Your task to perform on an android device: turn off priority inbox in the gmail app Image 0: 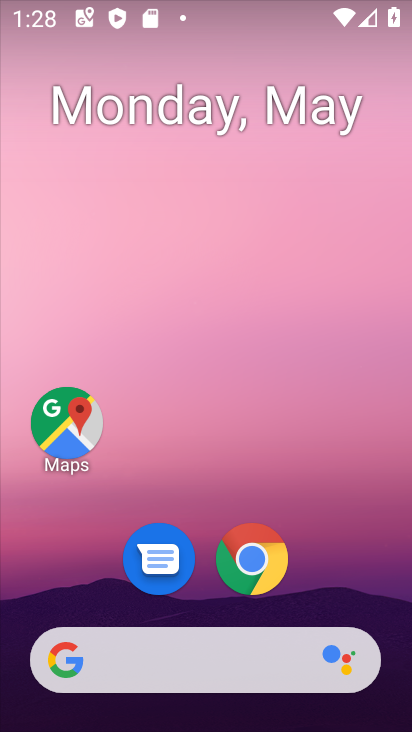
Step 0: drag from (191, 714) to (192, 285)
Your task to perform on an android device: turn off priority inbox in the gmail app Image 1: 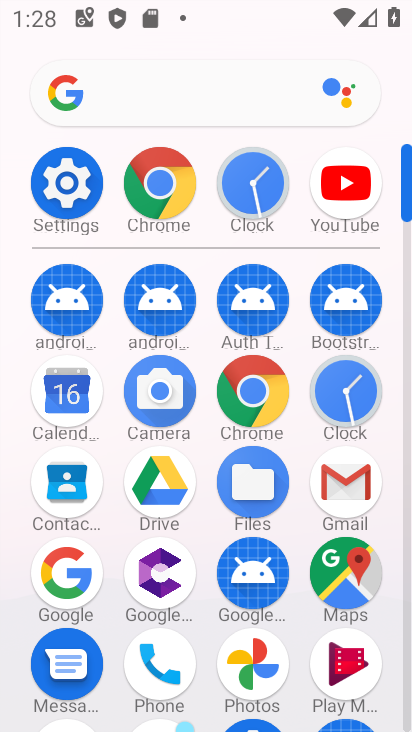
Step 1: click (357, 472)
Your task to perform on an android device: turn off priority inbox in the gmail app Image 2: 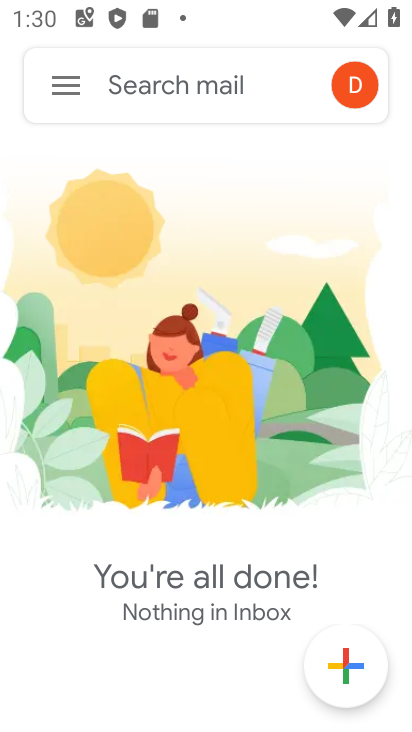
Step 2: click (69, 77)
Your task to perform on an android device: turn off priority inbox in the gmail app Image 3: 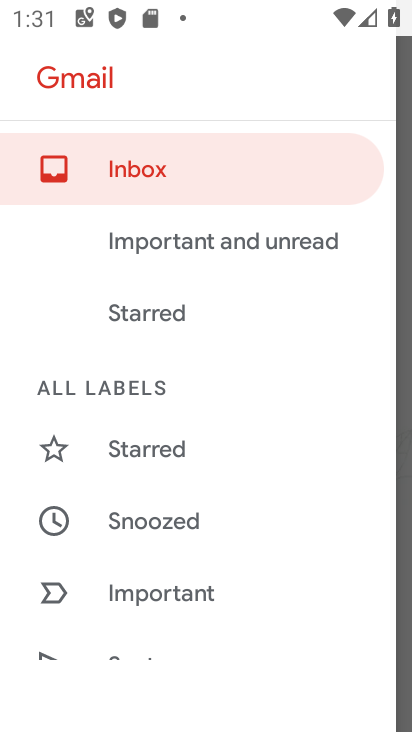
Step 3: drag from (242, 609) to (247, 82)
Your task to perform on an android device: turn off priority inbox in the gmail app Image 4: 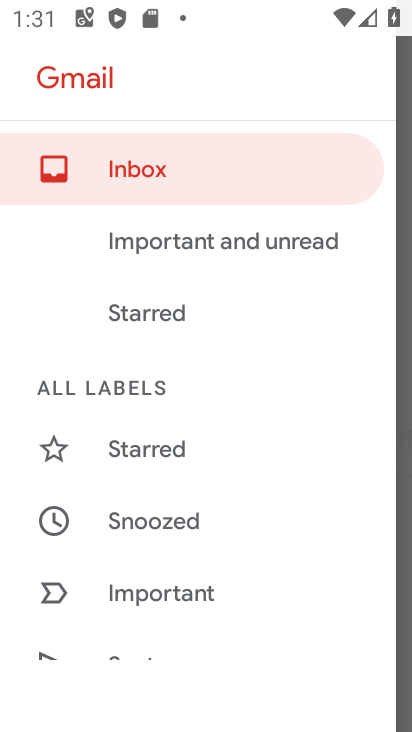
Step 4: drag from (255, 643) to (312, 119)
Your task to perform on an android device: turn off priority inbox in the gmail app Image 5: 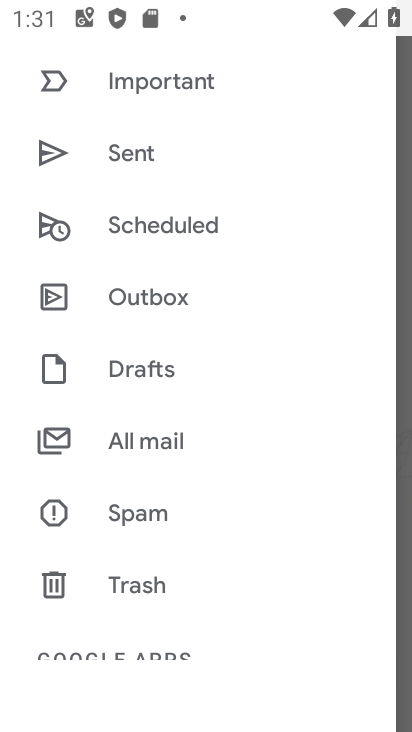
Step 5: drag from (216, 621) to (154, 128)
Your task to perform on an android device: turn off priority inbox in the gmail app Image 6: 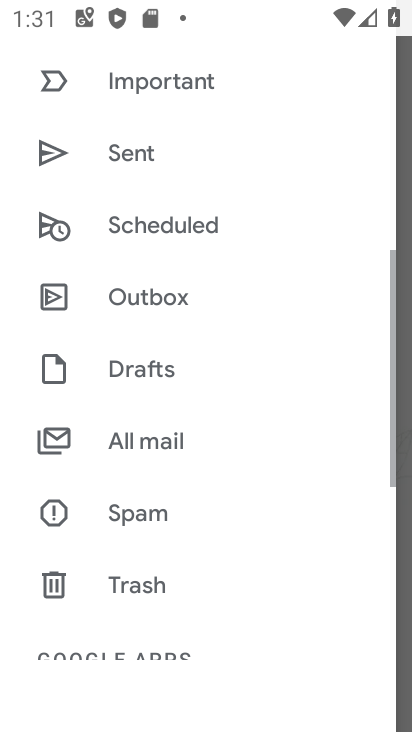
Step 6: drag from (193, 618) to (216, 22)
Your task to perform on an android device: turn off priority inbox in the gmail app Image 7: 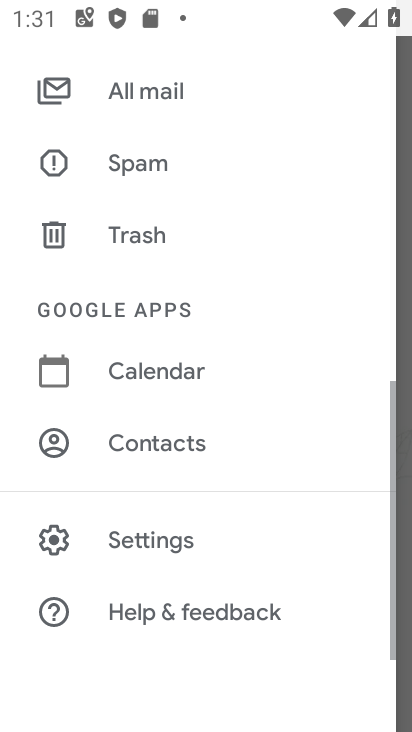
Step 7: drag from (150, 617) to (114, 21)
Your task to perform on an android device: turn off priority inbox in the gmail app Image 8: 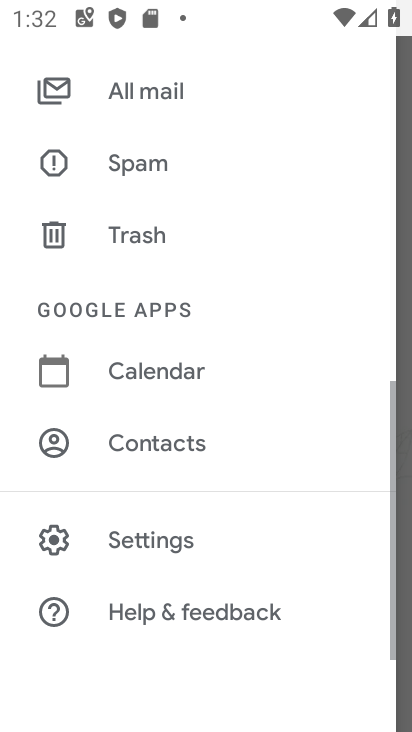
Step 8: drag from (148, 621) to (238, 69)
Your task to perform on an android device: turn off priority inbox in the gmail app Image 9: 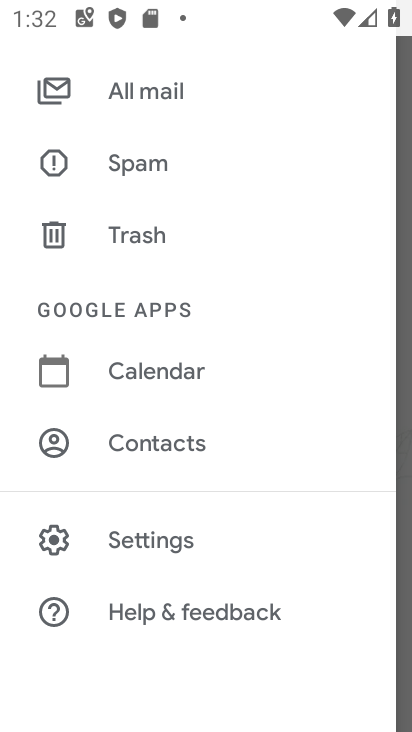
Step 9: click (121, 532)
Your task to perform on an android device: turn off priority inbox in the gmail app Image 10: 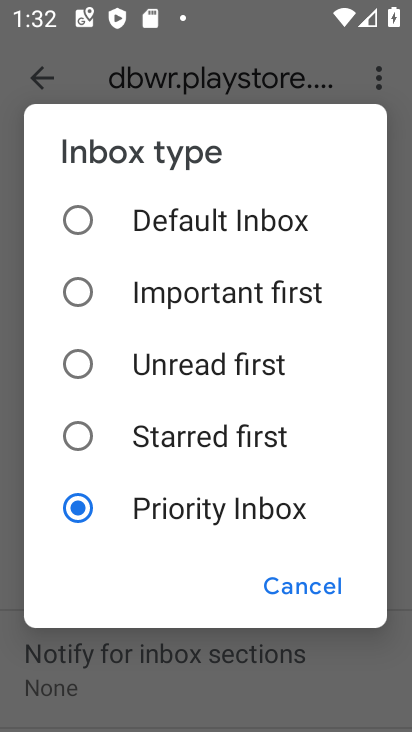
Step 10: click (94, 222)
Your task to perform on an android device: turn off priority inbox in the gmail app Image 11: 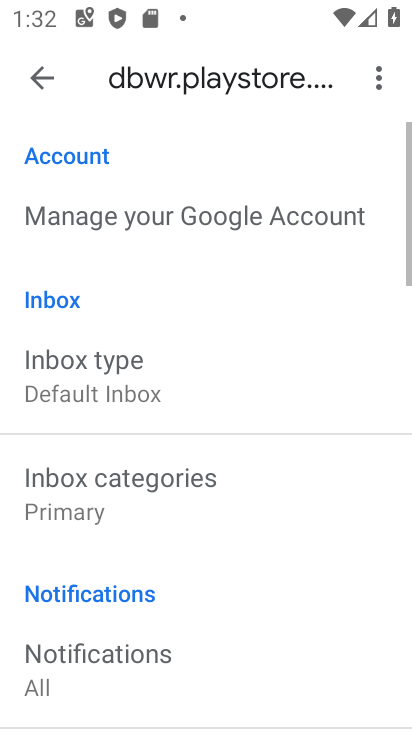
Step 11: task complete